Your task to perform on an android device: refresh tabs in the chrome app Image 0: 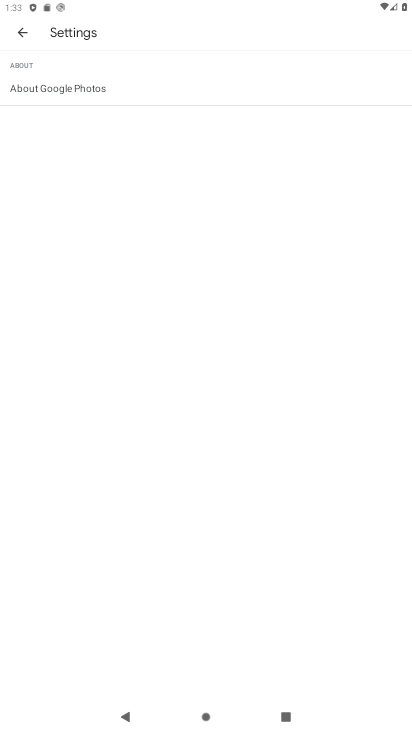
Step 0: press home button
Your task to perform on an android device: refresh tabs in the chrome app Image 1: 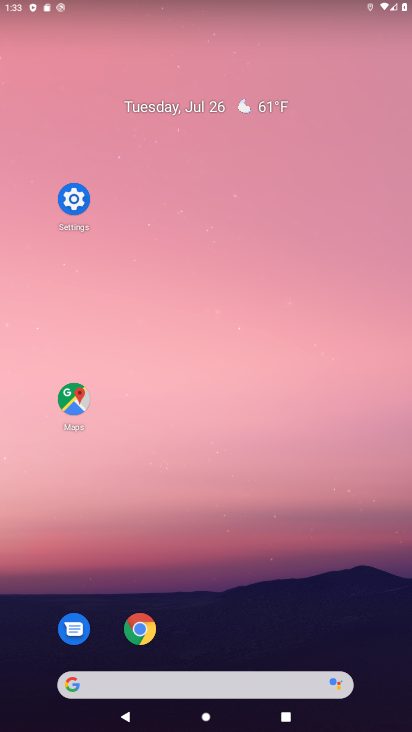
Step 1: click (140, 635)
Your task to perform on an android device: refresh tabs in the chrome app Image 2: 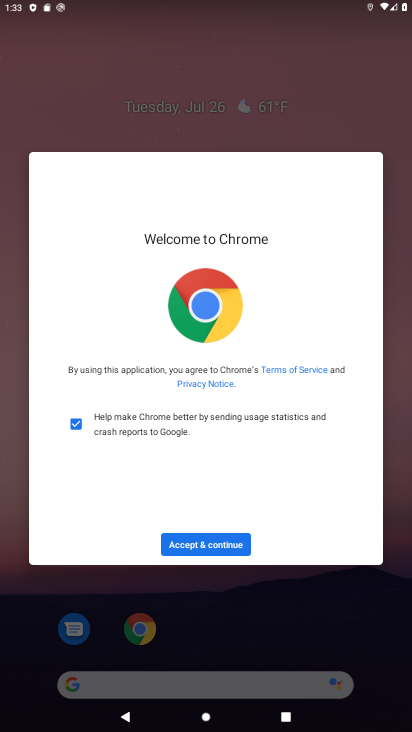
Step 2: click (184, 543)
Your task to perform on an android device: refresh tabs in the chrome app Image 3: 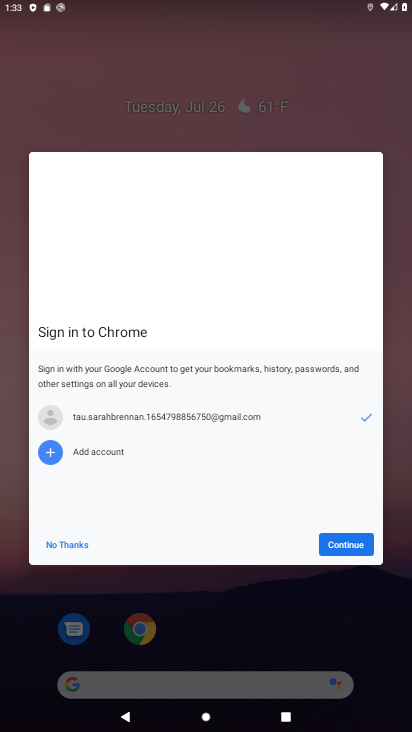
Step 3: click (367, 540)
Your task to perform on an android device: refresh tabs in the chrome app Image 4: 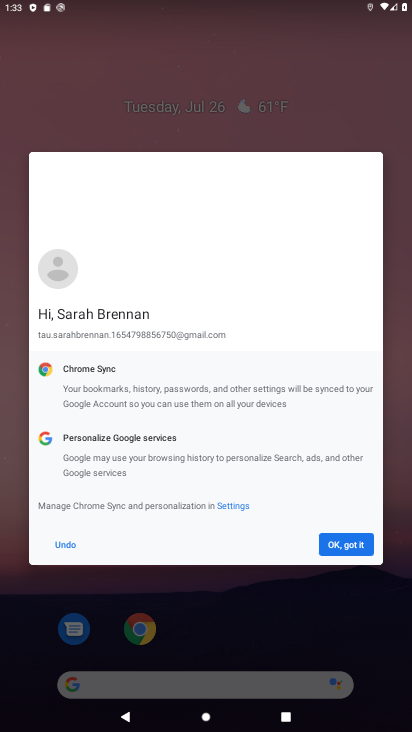
Step 4: click (333, 544)
Your task to perform on an android device: refresh tabs in the chrome app Image 5: 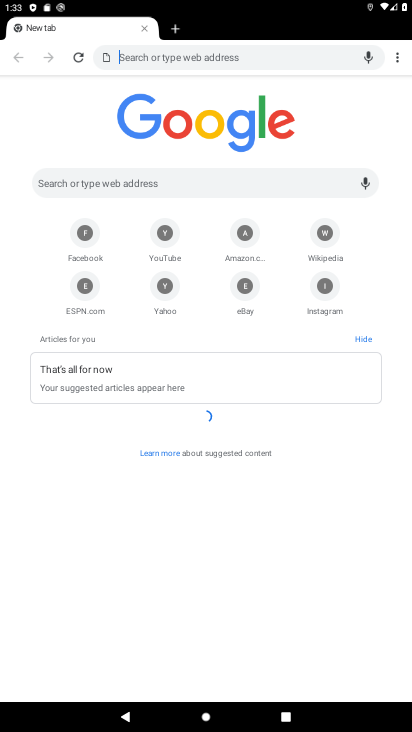
Step 5: click (179, 36)
Your task to perform on an android device: refresh tabs in the chrome app Image 6: 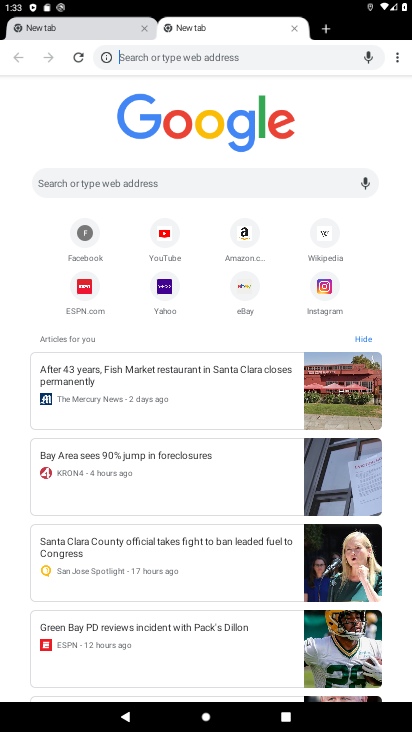
Step 6: task complete